Your task to perform on an android device: turn on sleep mode Image 0: 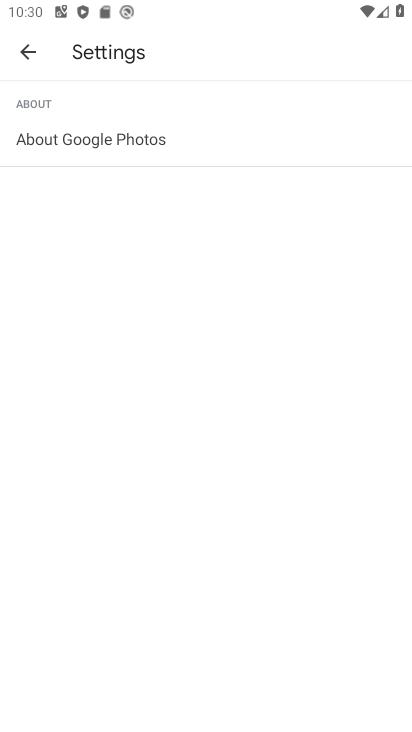
Step 0: press home button
Your task to perform on an android device: turn on sleep mode Image 1: 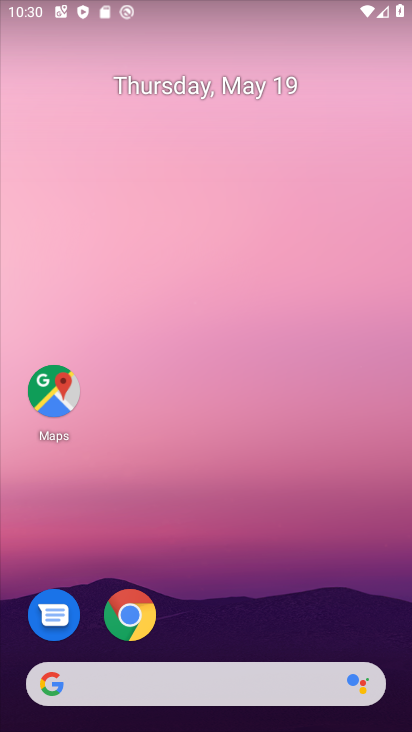
Step 1: drag from (264, 628) to (6, 89)
Your task to perform on an android device: turn on sleep mode Image 2: 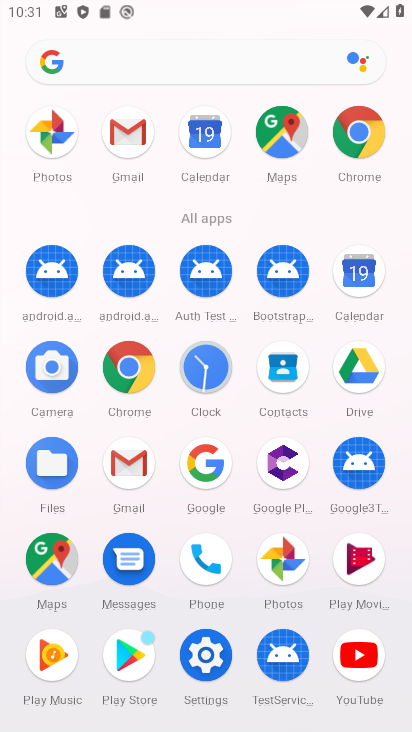
Step 2: click (204, 658)
Your task to perform on an android device: turn on sleep mode Image 3: 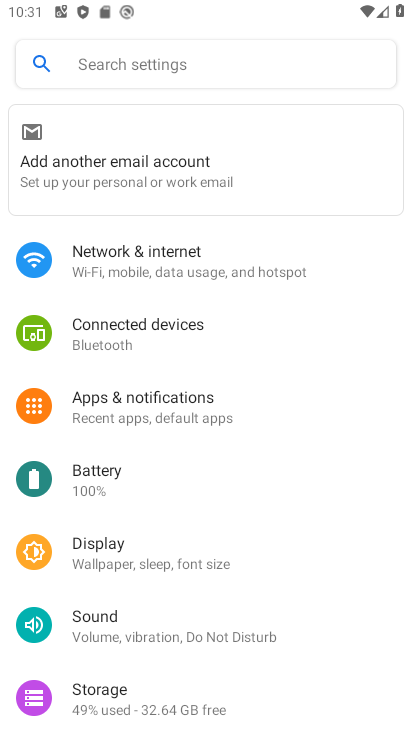
Step 3: click (89, 561)
Your task to perform on an android device: turn on sleep mode Image 4: 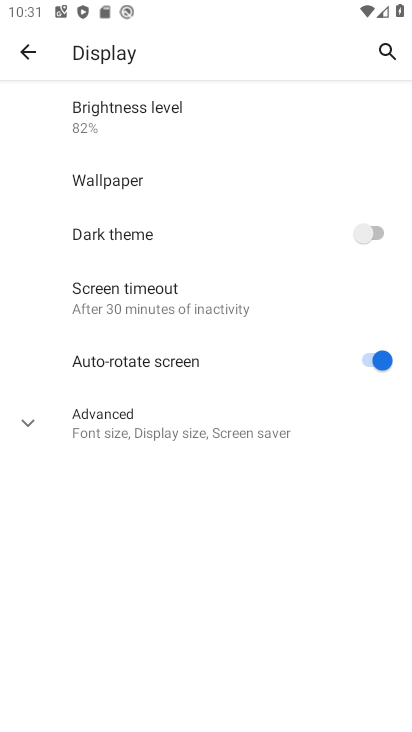
Step 4: click (28, 429)
Your task to perform on an android device: turn on sleep mode Image 5: 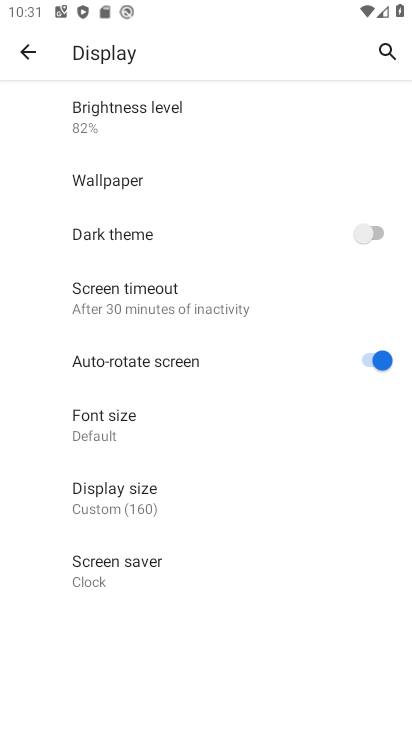
Step 5: task complete